Your task to perform on an android device: turn on notifications settings in the gmail app Image 0: 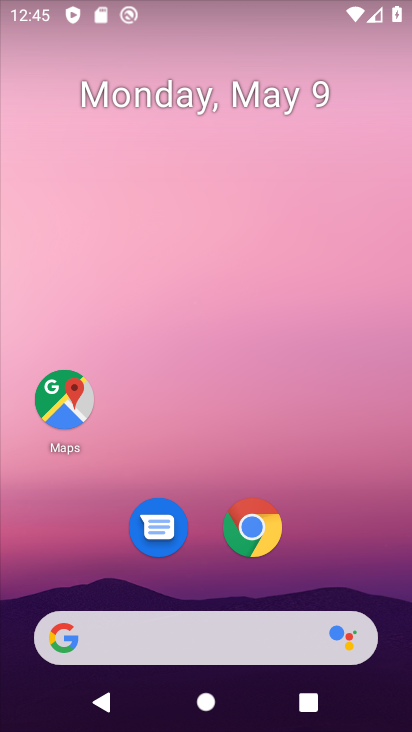
Step 0: drag from (314, 577) to (410, 0)
Your task to perform on an android device: turn on notifications settings in the gmail app Image 1: 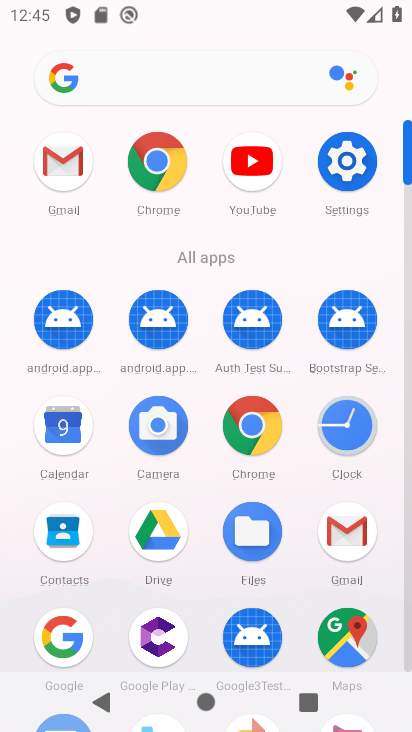
Step 1: click (74, 189)
Your task to perform on an android device: turn on notifications settings in the gmail app Image 2: 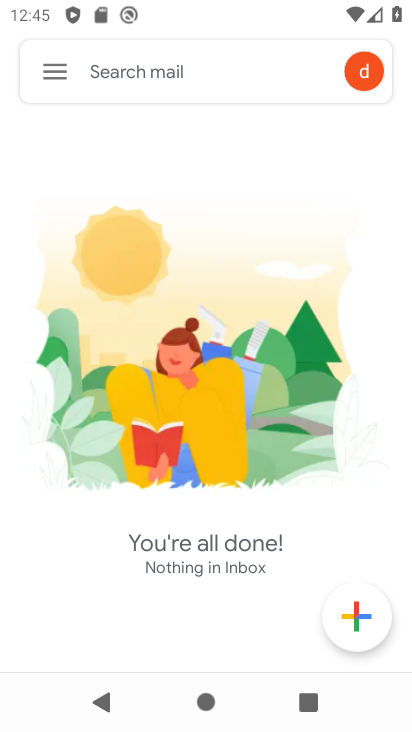
Step 2: click (58, 61)
Your task to perform on an android device: turn on notifications settings in the gmail app Image 3: 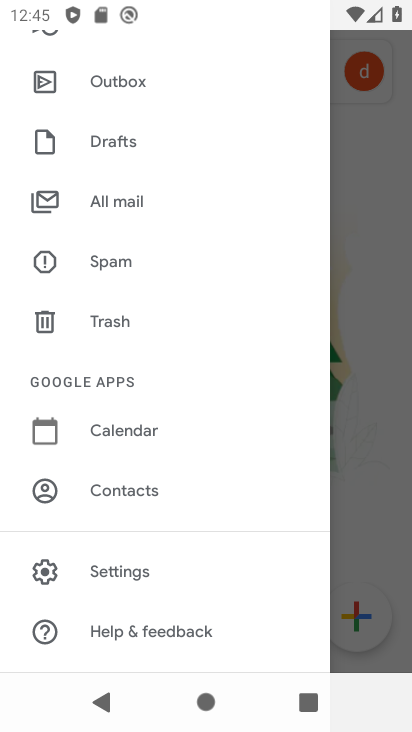
Step 3: click (161, 558)
Your task to perform on an android device: turn on notifications settings in the gmail app Image 4: 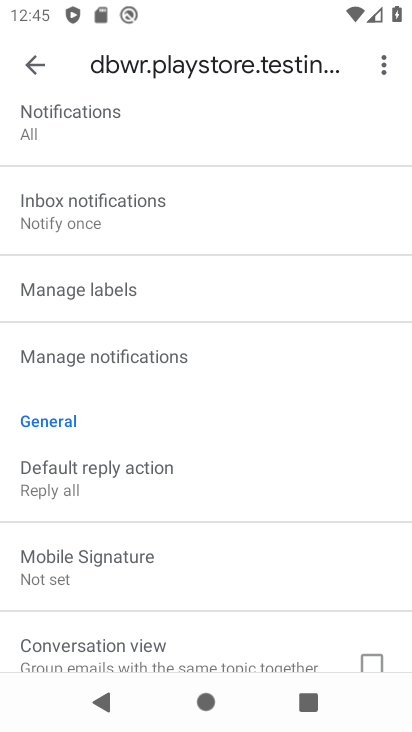
Step 4: click (167, 354)
Your task to perform on an android device: turn on notifications settings in the gmail app Image 5: 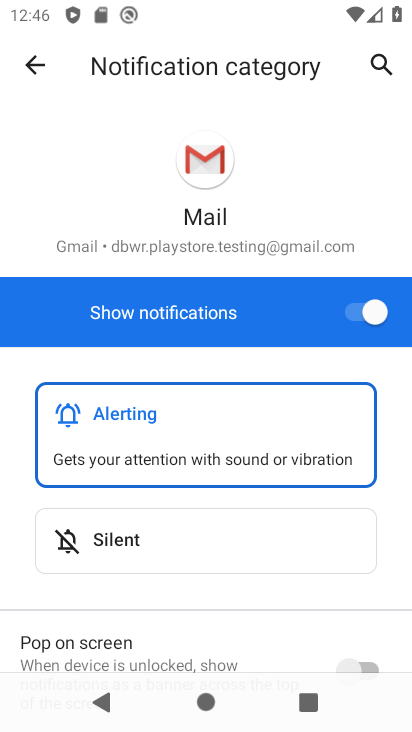
Step 5: task complete